Your task to perform on an android device: check battery use Image 0: 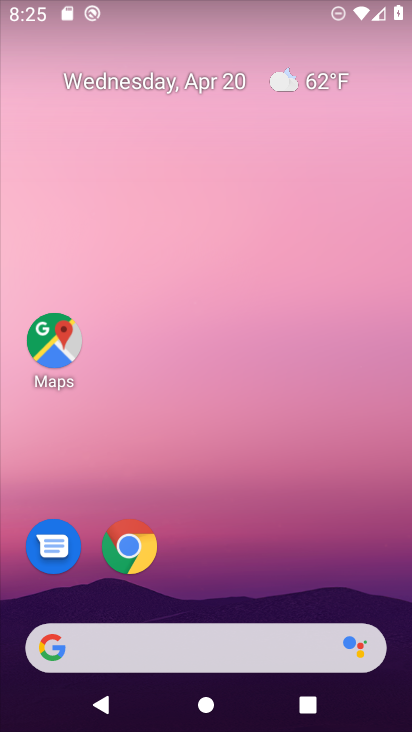
Step 0: drag from (254, 517) to (255, 117)
Your task to perform on an android device: check battery use Image 1: 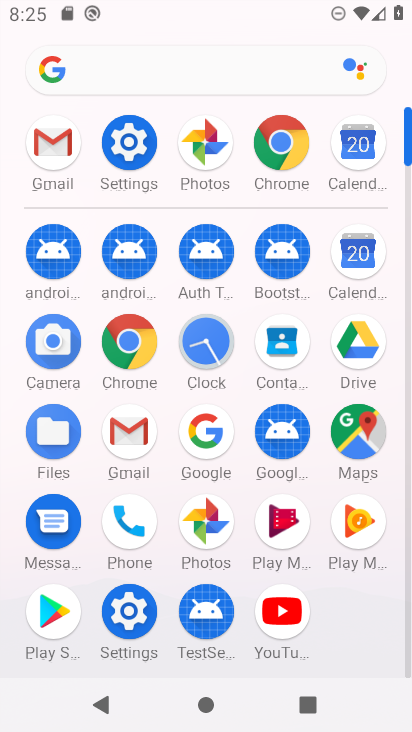
Step 1: click (132, 610)
Your task to perform on an android device: check battery use Image 2: 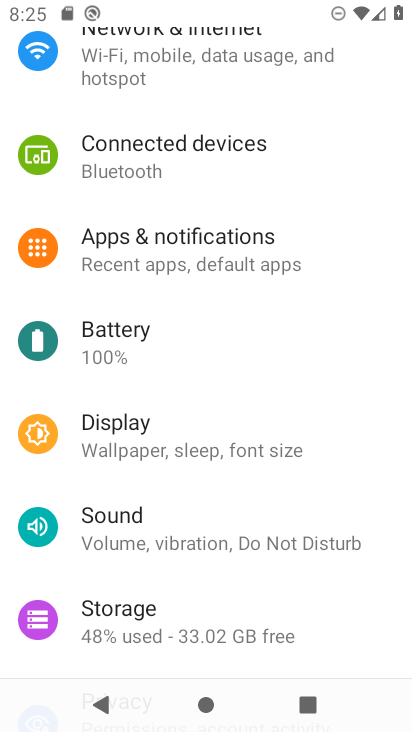
Step 2: click (210, 346)
Your task to perform on an android device: check battery use Image 3: 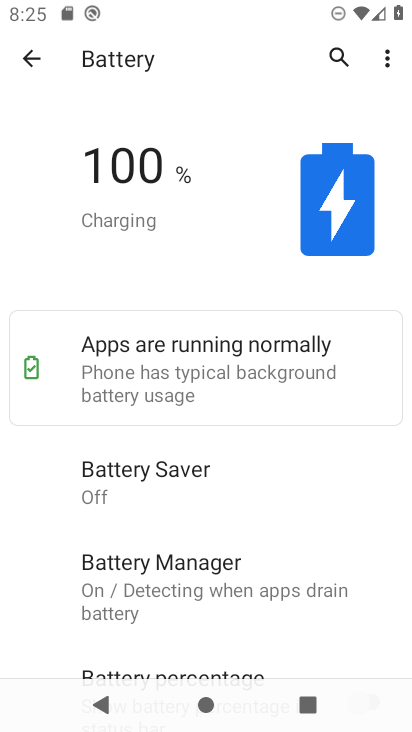
Step 3: click (387, 53)
Your task to perform on an android device: check battery use Image 4: 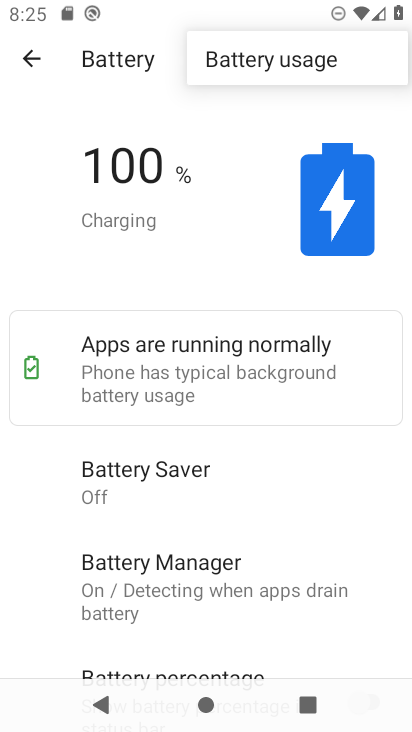
Step 4: click (319, 52)
Your task to perform on an android device: check battery use Image 5: 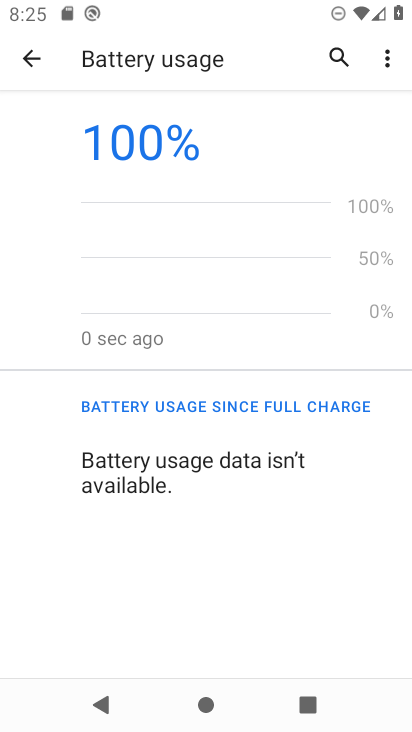
Step 5: task complete